Your task to perform on an android device: turn off notifications in google photos Image 0: 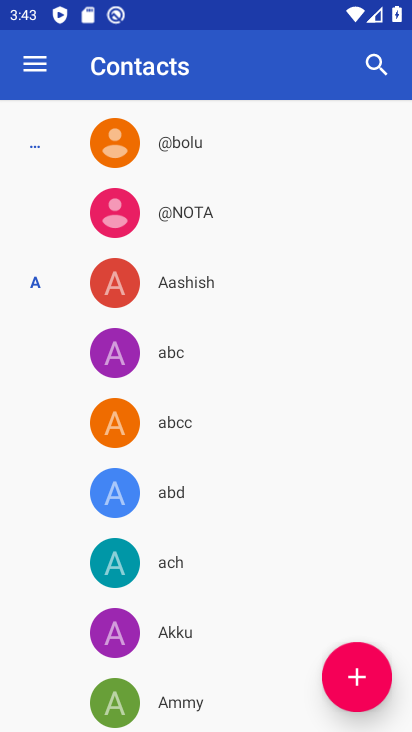
Step 0: press home button
Your task to perform on an android device: turn off notifications in google photos Image 1: 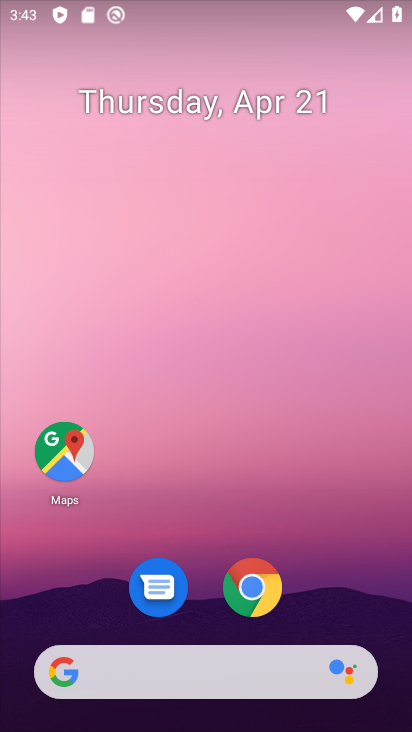
Step 1: drag from (239, 498) to (217, 1)
Your task to perform on an android device: turn off notifications in google photos Image 2: 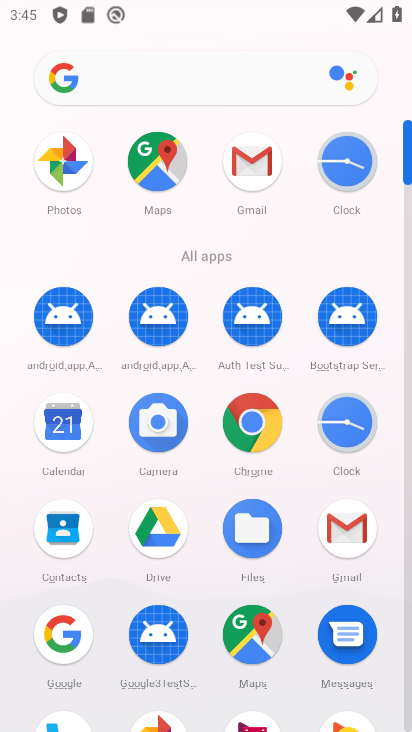
Step 2: click (79, 161)
Your task to perform on an android device: turn off notifications in google photos Image 3: 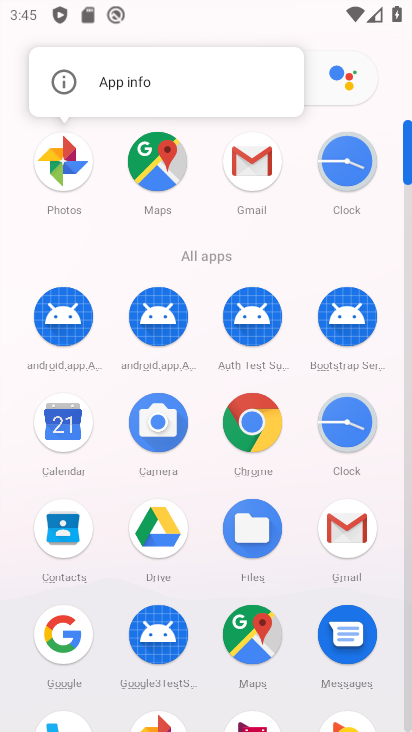
Step 3: click (97, 100)
Your task to perform on an android device: turn off notifications in google photos Image 4: 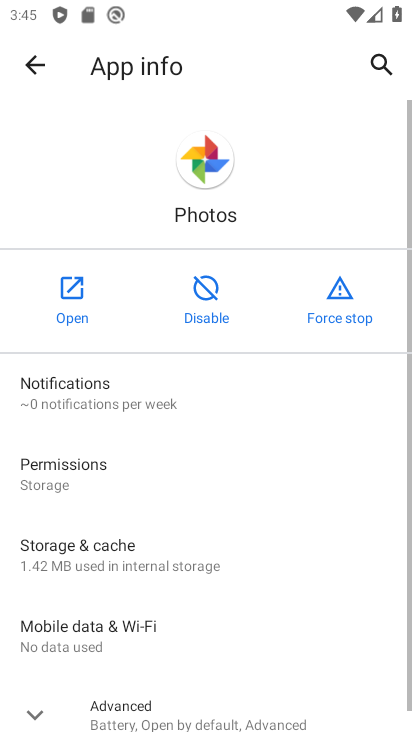
Step 4: click (145, 385)
Your task to perform on an android device: turn off notifications in google photos Image 5: 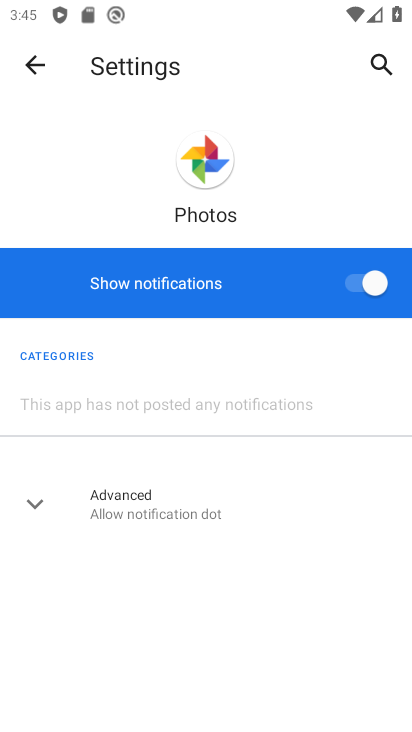
Step 5: click (319, 279)
Your task to perform on an android device: turn off notifications in google photos Image 6: 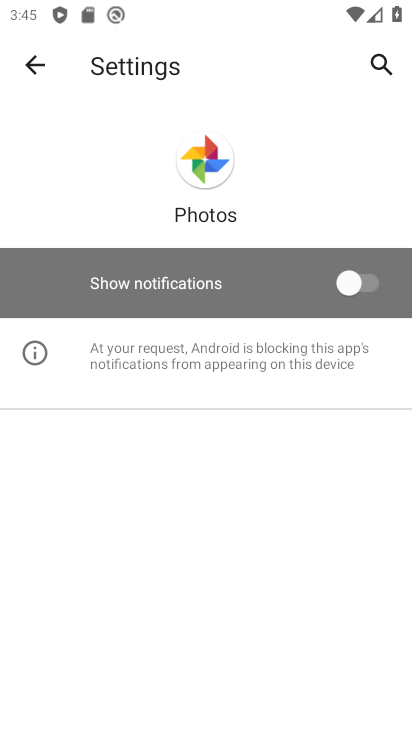
Step 6: task complete